Your task to perform on an android device: Play the last video I watched on Youtube Image 0: 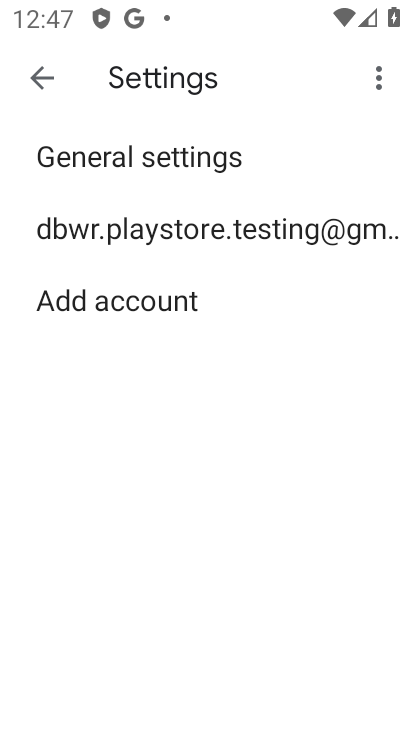
Step 0: press back button
Your task to perform on an android device: Play the last video I watched on Youtube Image 1: 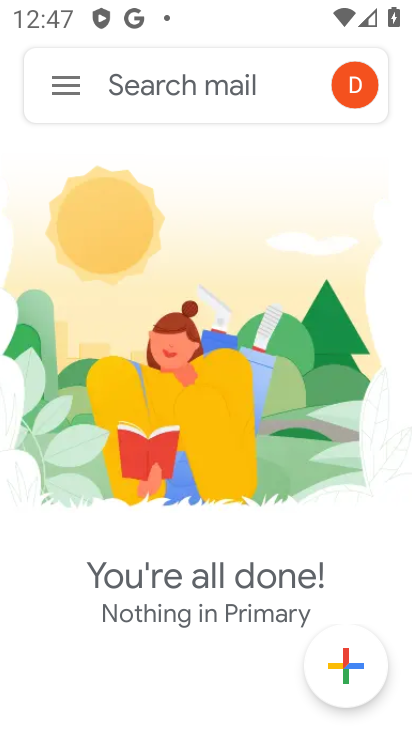
Step 1: press home button
Your task to perform on an android device: Play the last video I watched on Youtube Image 2: 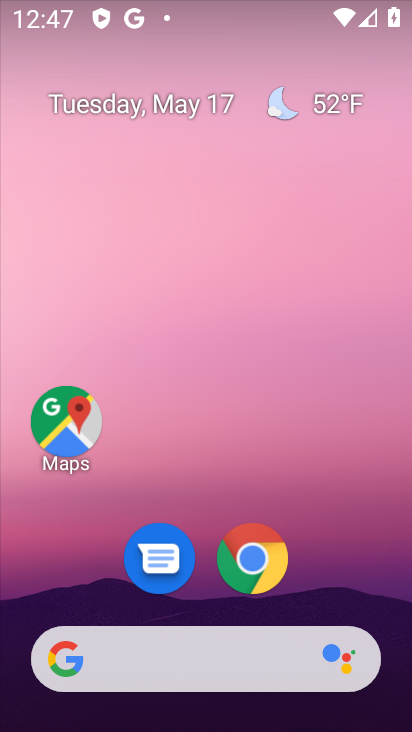
Step 2: drag from (335, 592) to (344, 121)
Your task to perform on an android device: Play the last video I watched on Youtube Image 3: 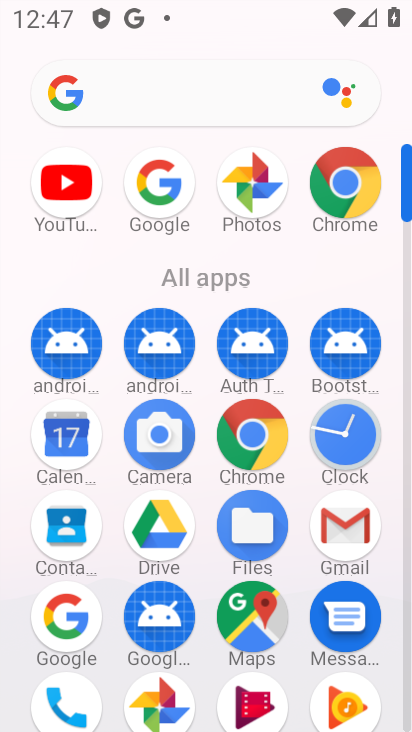
Step 3: click (54, 203)
Your task to perform on an android device: Play the last video I watched on Youtube Image 4: 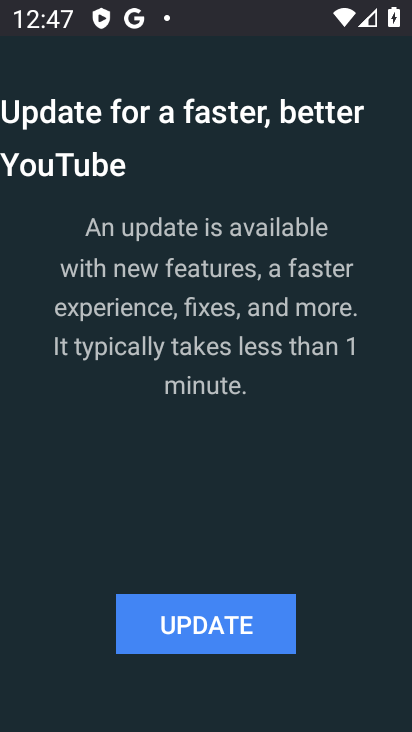
Step 4: click (241, 636)
Your task to perform on an android device: Play the last video I watched on Youtube Image 5: 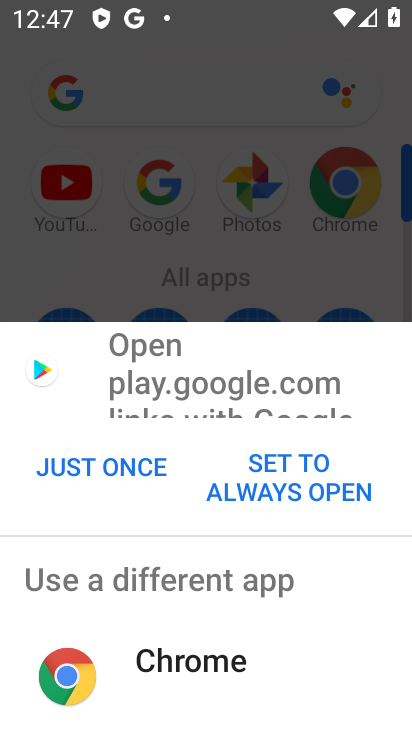
Step 5: click (113, 469)
Your task to perform on an android device: Play the last video I watched on Youtube Image 6: 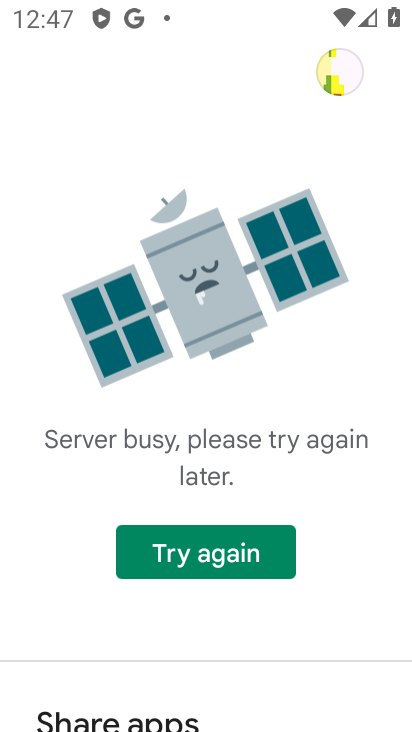
Step 6: click (259, 552)
Your task to perform on an android device: Play the last video I watched on Youtube Image 7: 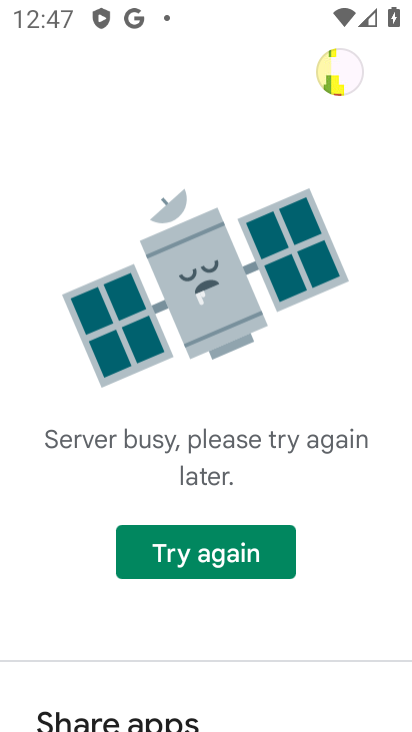
Step 7: click (266, 562)
Your task to perform on an android device: Play the last video I watched on Youtube Image 8: 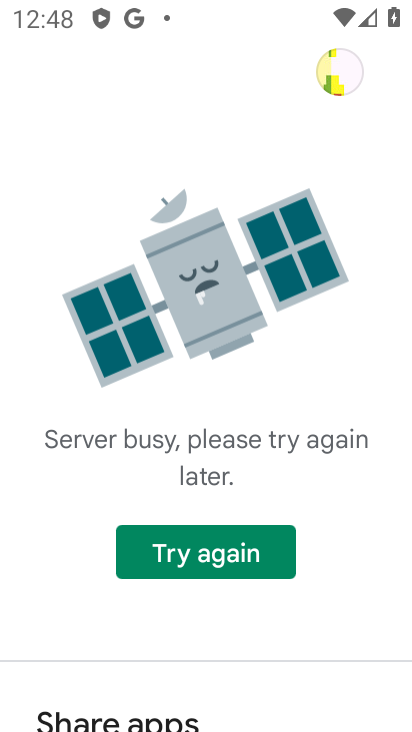
Step 8: click (245, 557)
Your task to perform on an android device: Play the last video I watched on Youtube Image 9: 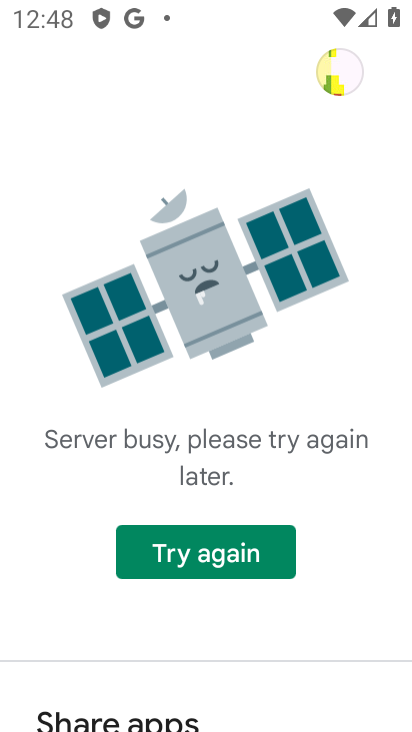
Step 9: task complete